Your task to perform on an android device: View the shopping cart on walmart. Image 0: 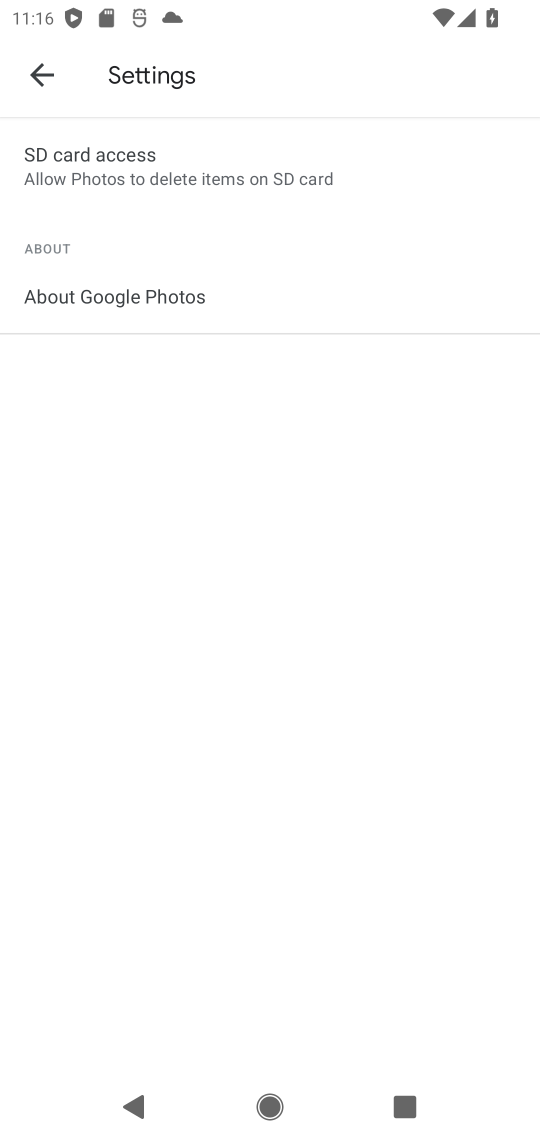
Step 0: press home button
Your task to perform on an android device: View the shopping cart on walmart. Image 1: 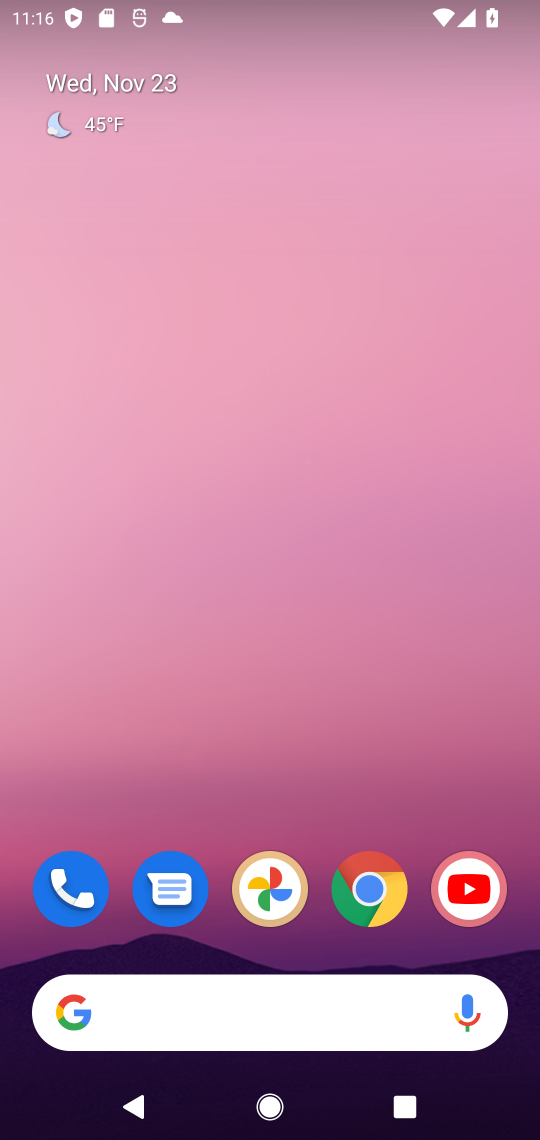
Step 1: click (378, 904)
Your task to perform on an android device: View the shopping cart on walmart. Image 2: 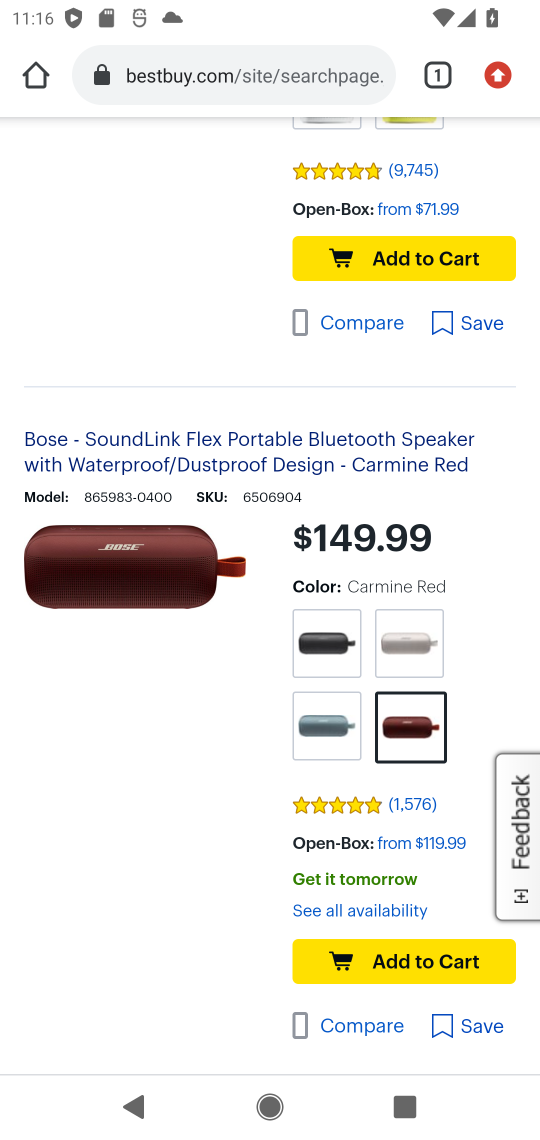
Step 2: click (204, 76)
Your task to perform on an android device: View the shopping cart on walmart. Image 3: 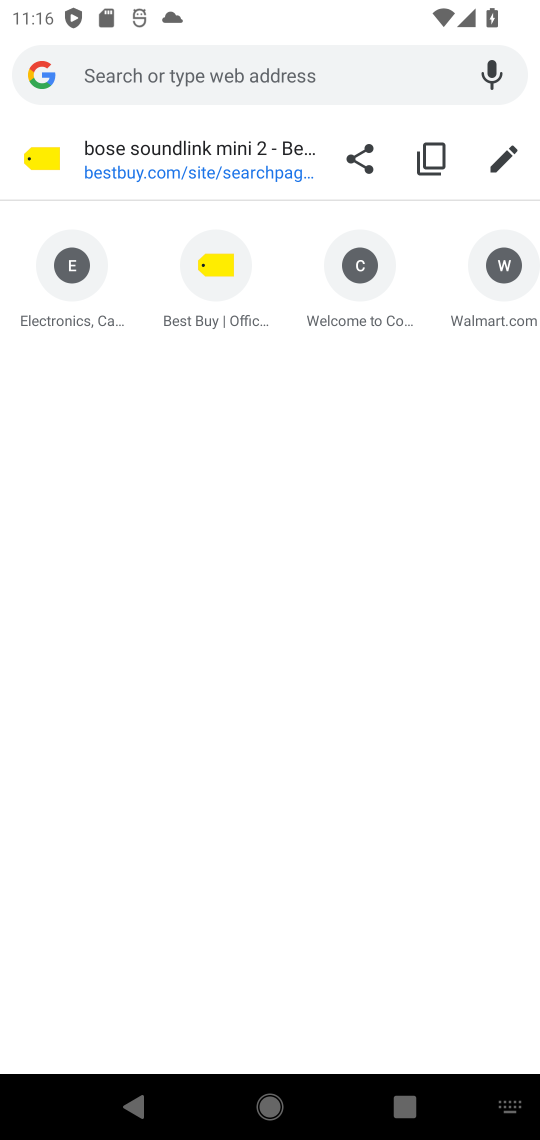
Step 3: click (502, 270)
Your task to perform on an android device: View the shopping cart on walmart. Image 4: 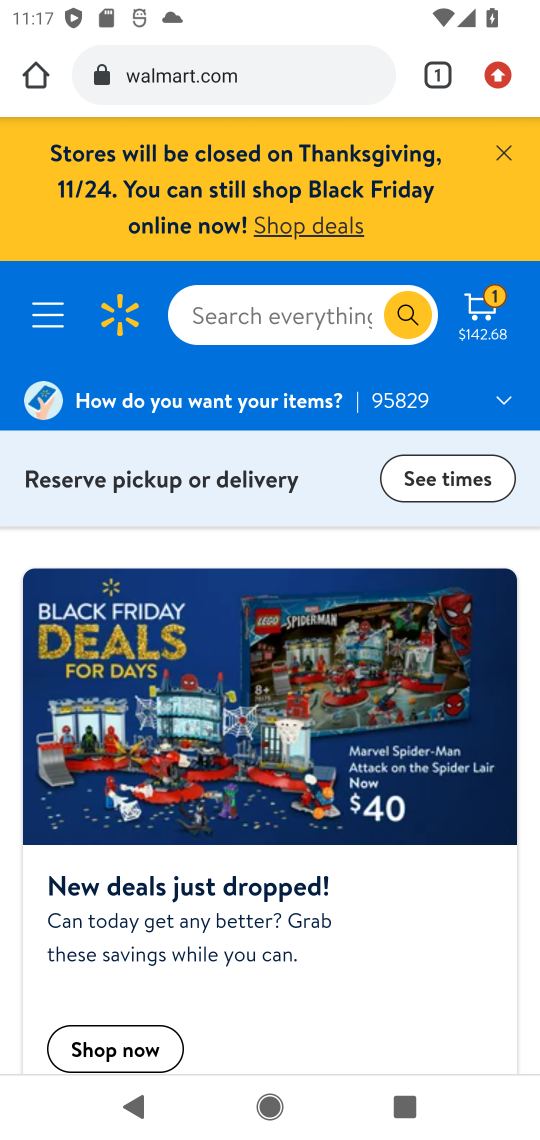
Step 4: click (491, 311)
Your task to perform on an android device: View the shopping cart on walmart. Image 5: 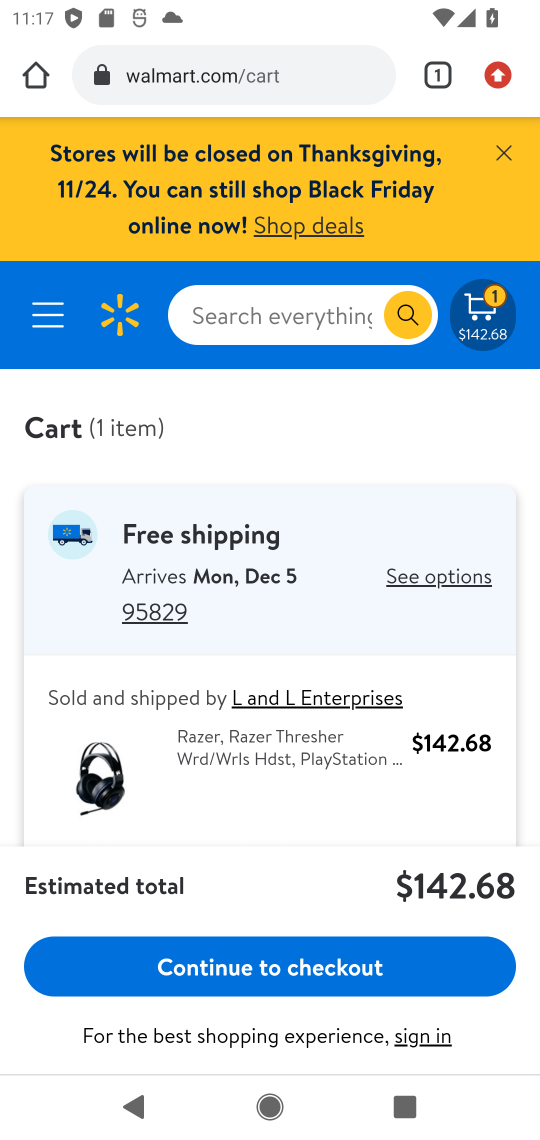
Step 5: task complete